Your task to perform on an android device: turn off notifications settings in the gmail app Image 0: 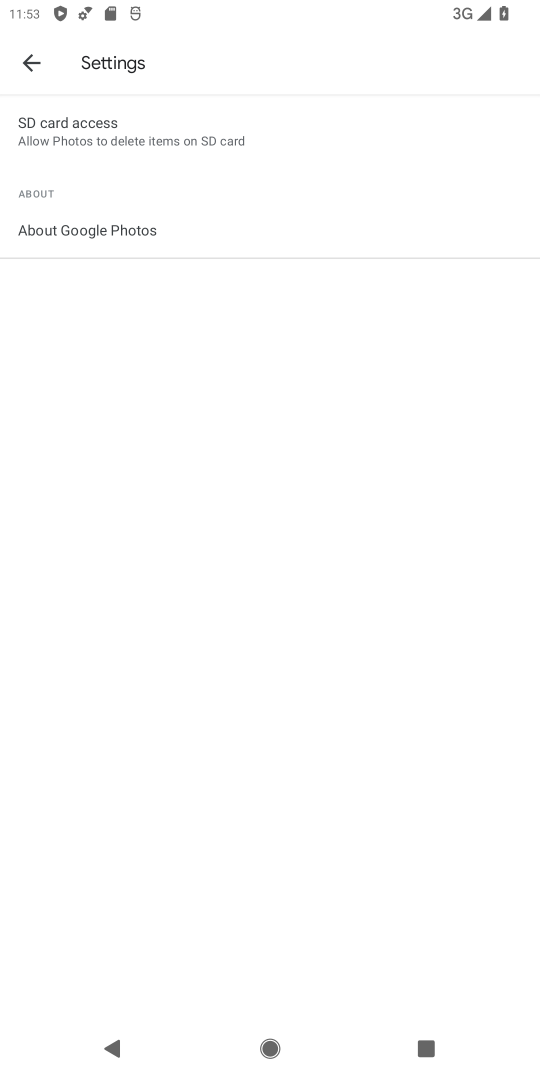
Step 0: press home button
Your task to perform on an android device: turn off notifications settings in the gmail app Image 1: 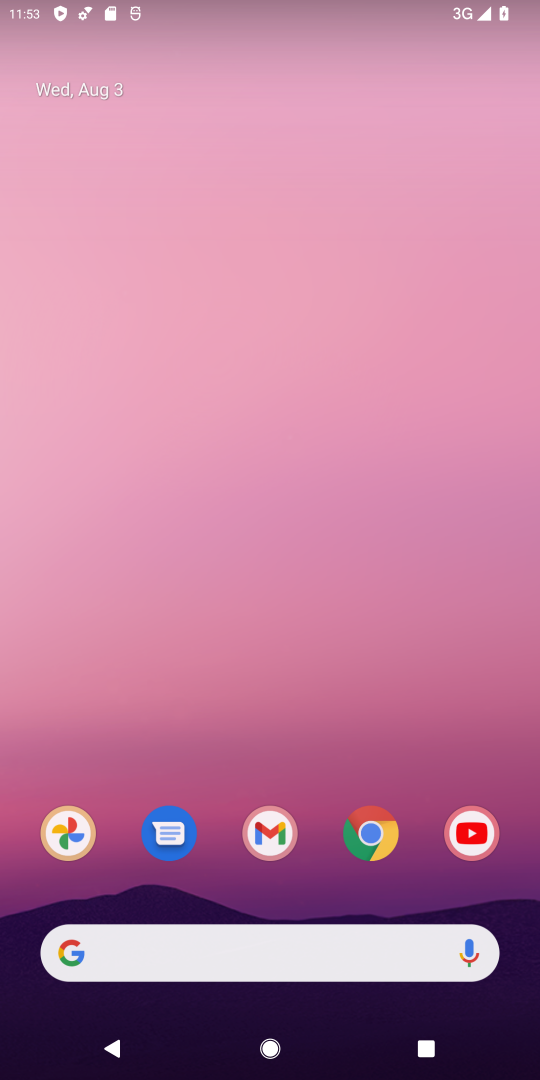
Step 1: drag from (266, 932) to (244, 95)
Your task to perform on an android device: turn off notifications settings in the gmail app Image 2: 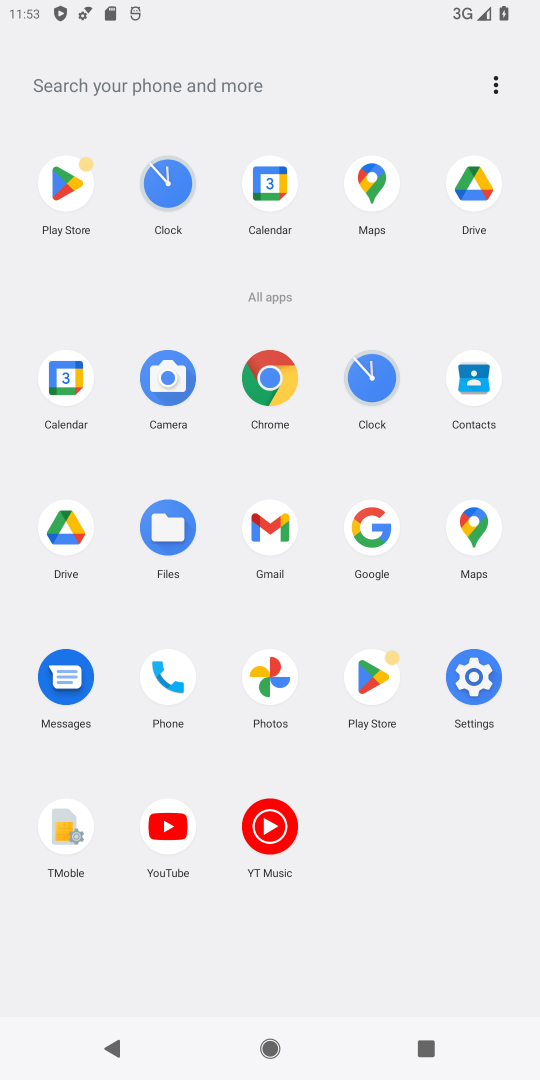
Step 2: click (251, 528)
Your task to perform on an android device: turn off notifications settings in the gmail app Image 3: 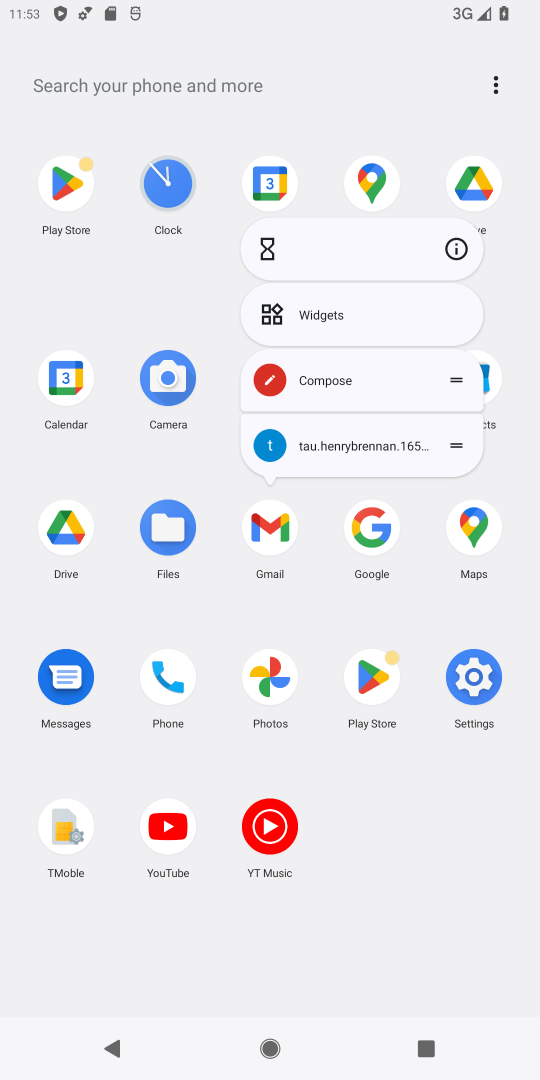
Step 3: click (452, 248)
Your task to perform on an android device: turn off notifications settings in the gmail app Image 4: 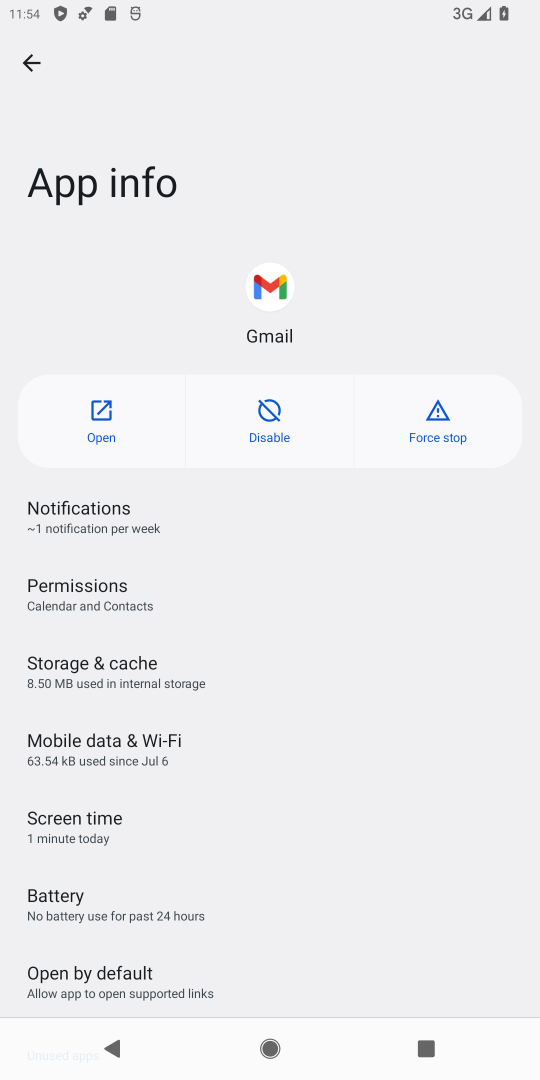
Step 4: click (106, 426)
Your task to perform on an android device: turn off notifications settings in the gmail app Image 5: 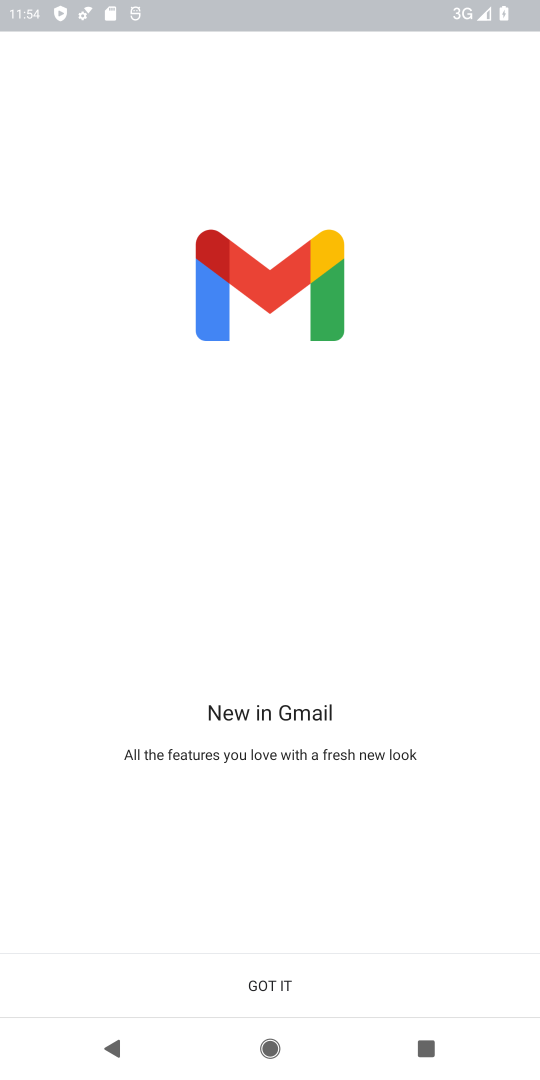
Step 5: drag from (261, 837) to (227, 548)
Your task to perform on an android device: turn off notifications settings in the gmail app Image 6: 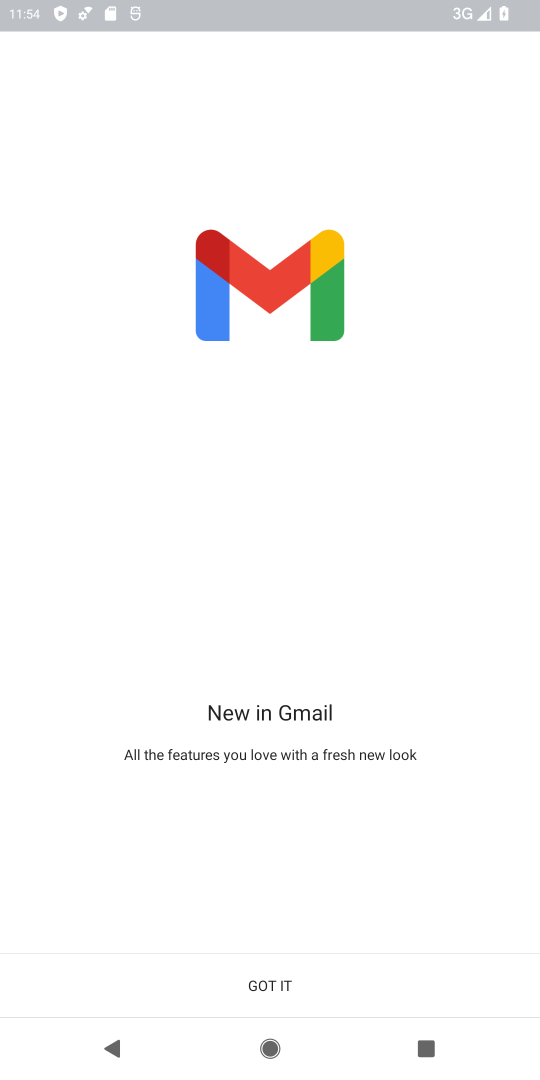
Step 6: click (240, 989)
Your task to perform on an android device: turn off notifications settings in the gmail app Image 7: 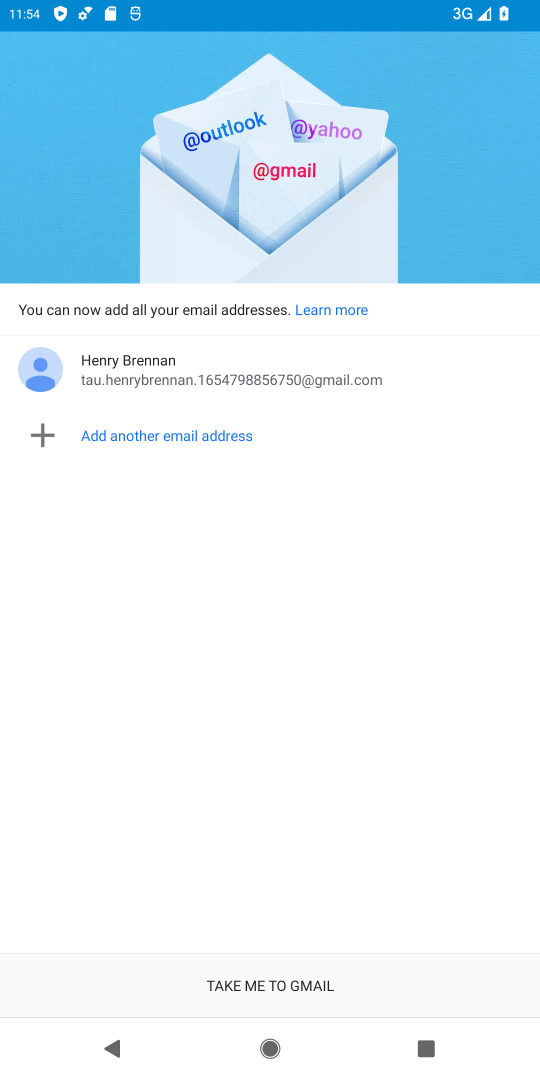
Step 7: click (245, 987)
Your task to perform on an android device: turn off notifications settings in the gmail app Image 8: 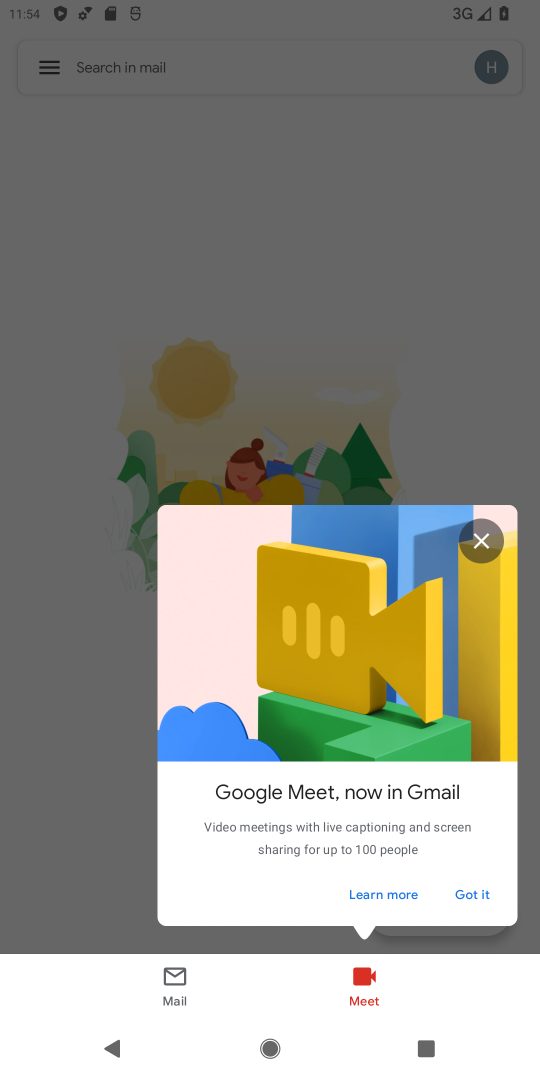
Step 8: click (467, 391)
Your task to perform on an android device: turn off notifications settings in the gmail app Image 9: 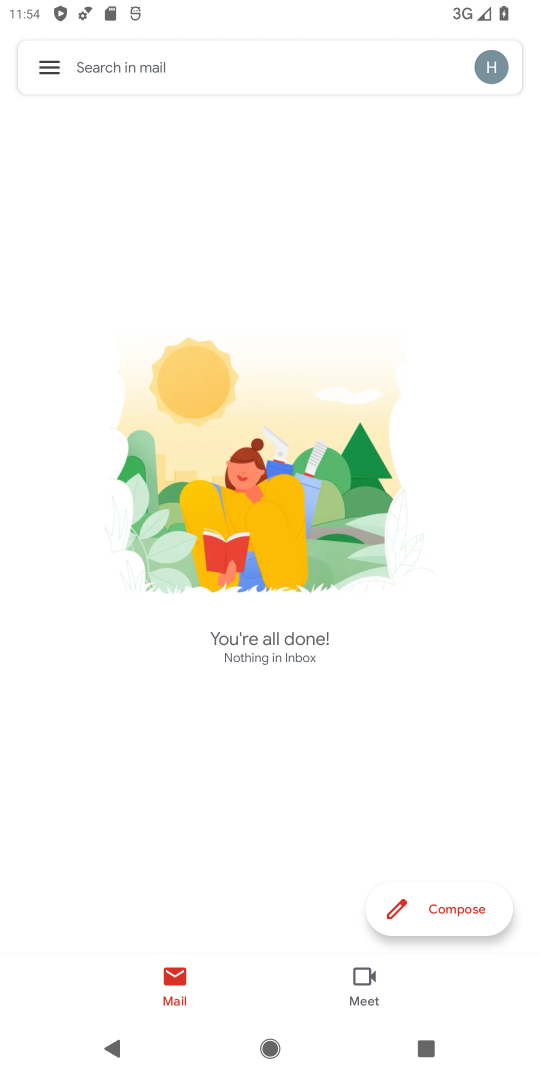
Step 9: drag from (298, 557) to (306, 409)
Your task to perform on an android device: turn off notifications settings in the gmail app Image 10: 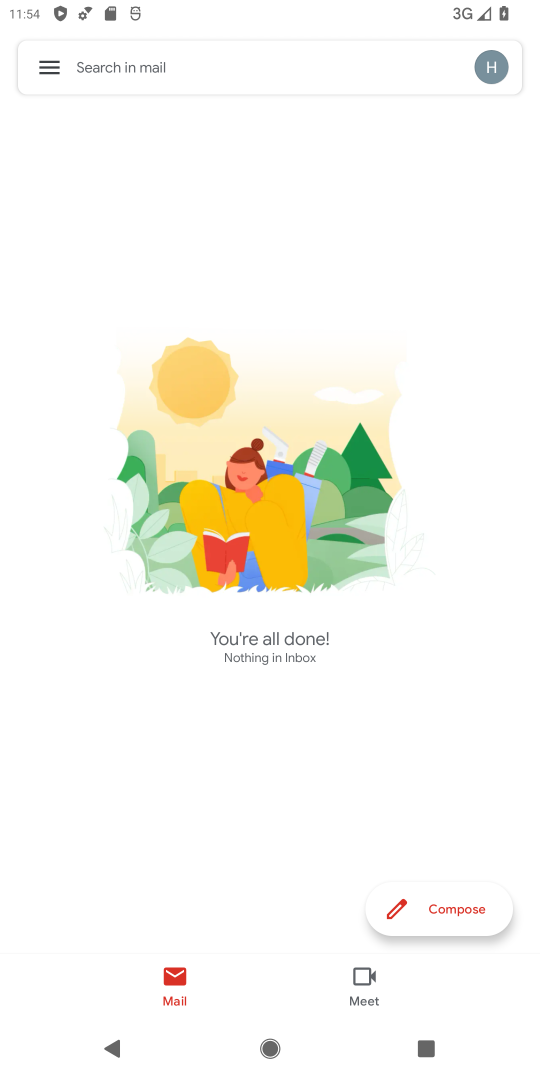
Step 10: click (33, 60)
Your task to perform on an android device: turn off notifications settings in the gmail app Image 11: 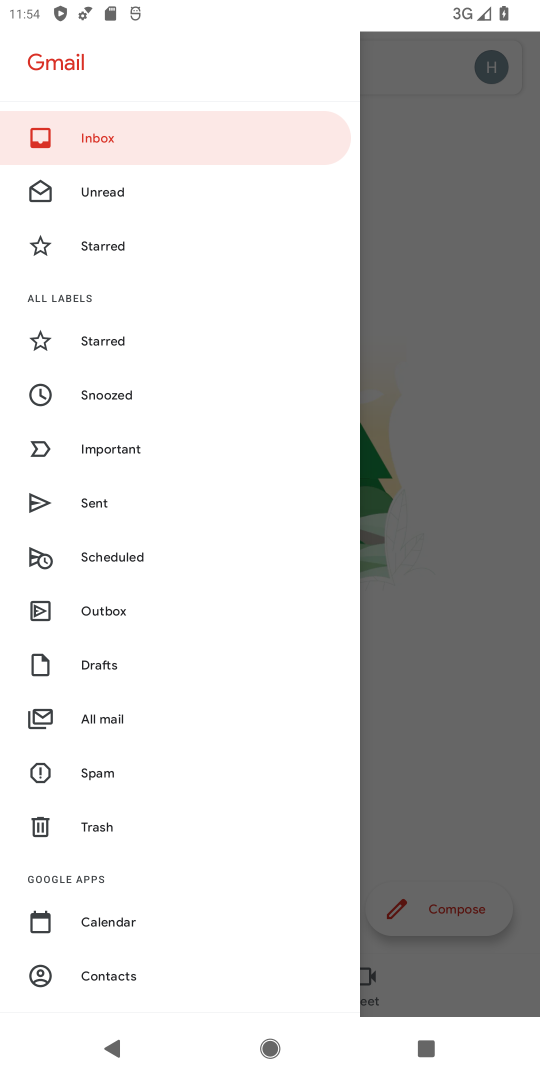
Step 11: drag from (171, 879) to (200, 297)
Your task to perform on an android device: turn off notifications settings in the gmail app Image 12: 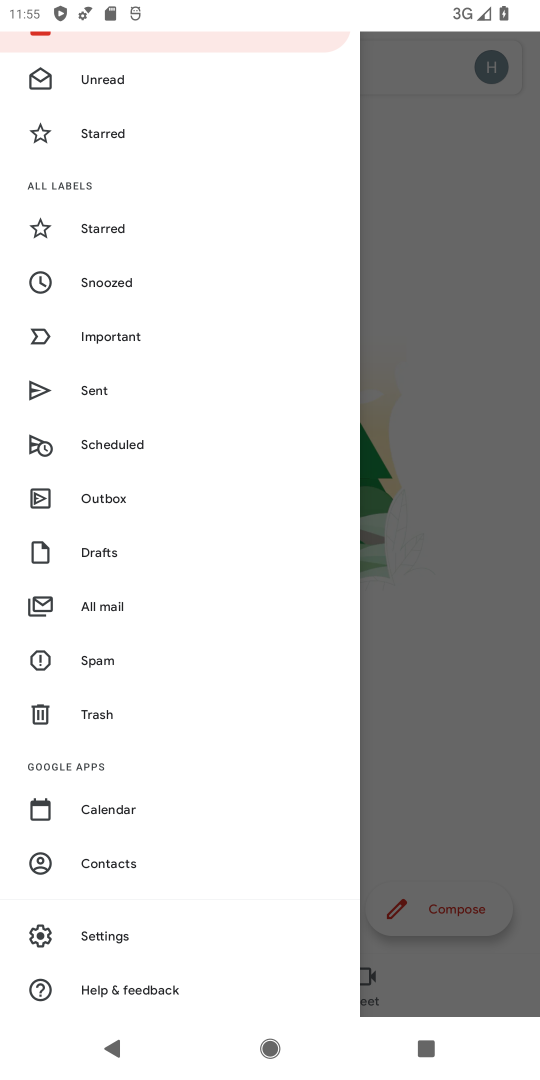
Step 12: click (125, 935)
Your task to perform on an android device: turn off notifications settings in the gmail app Image 13: 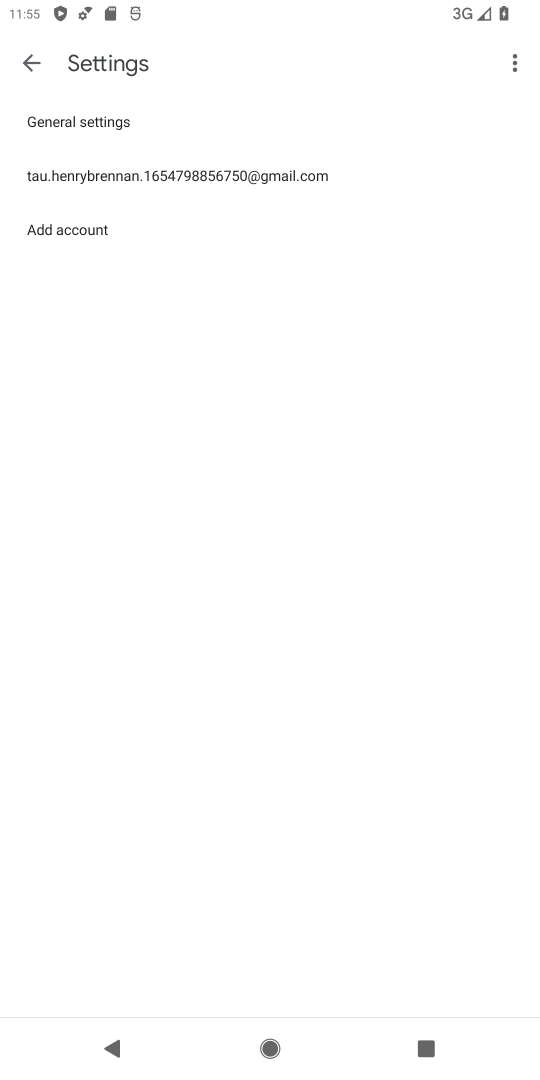
Step 13: click (165, 173)
Your task to perform on an android device: turn off notifications settings in the gmail app Image 14: 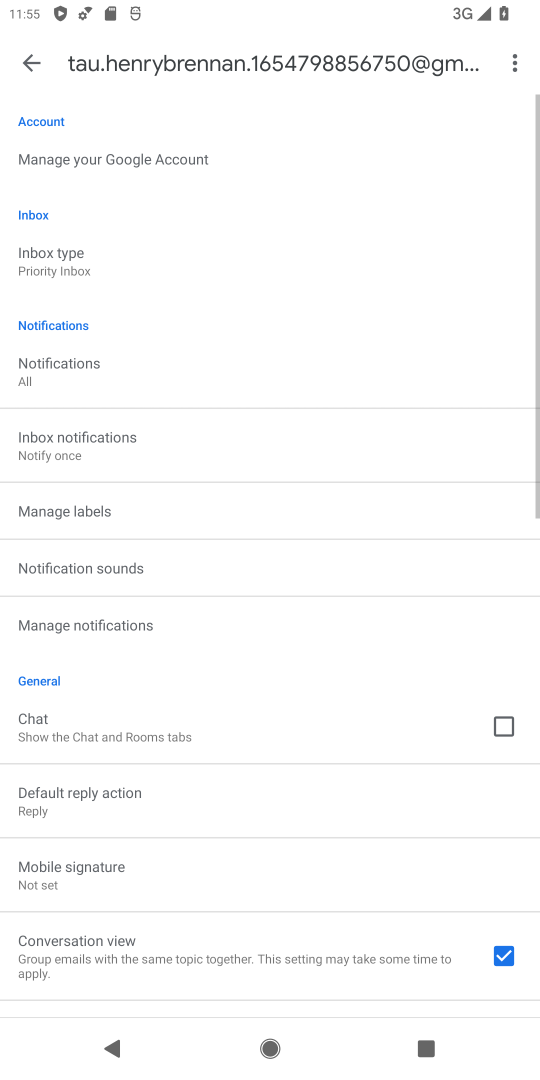
Step 14: drag from (188, 695) to (218, 311)
Your task to perform on an android device: turn off notifications settings in the gmail app Image 15: 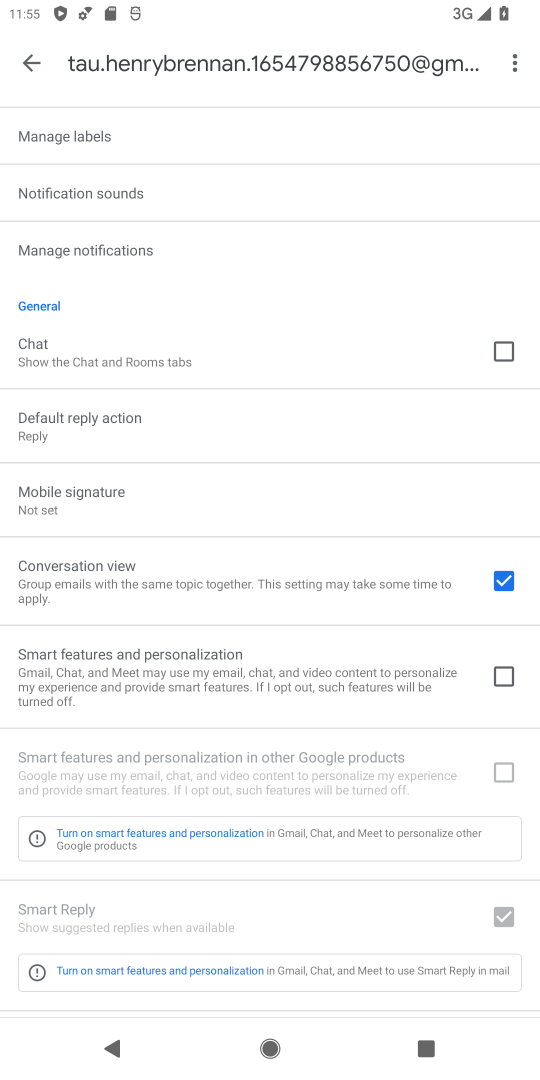
Step 15: drag from (260, 879) to (339, 264)
Your task to perform on an android device: turn off notifications settings in the gmail app Image 16: 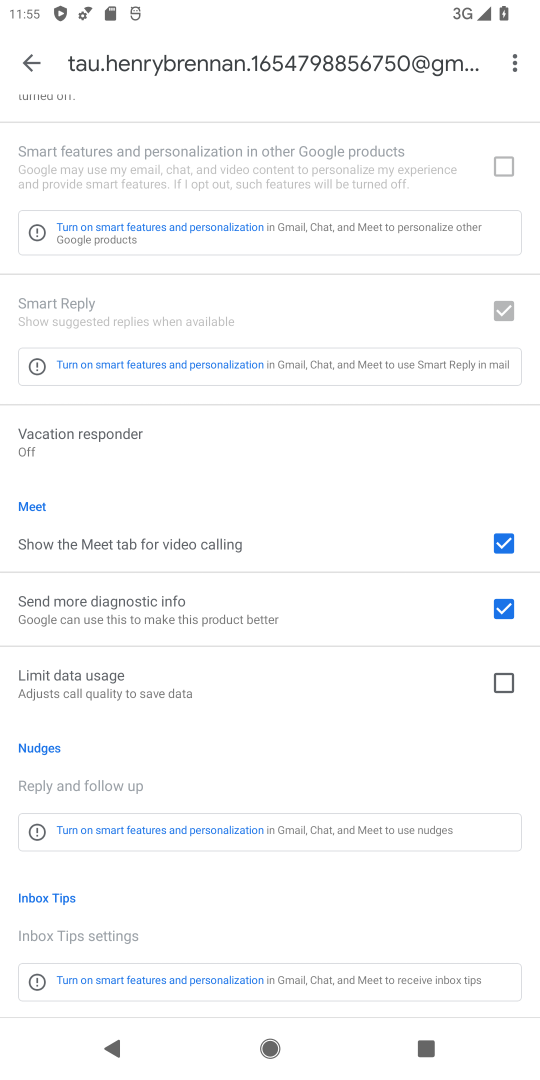
Step 16: drag from (307, 973) to (330, 362)
Your task to perform on an android device: turn off notifications settings in the gmail app Image 17: 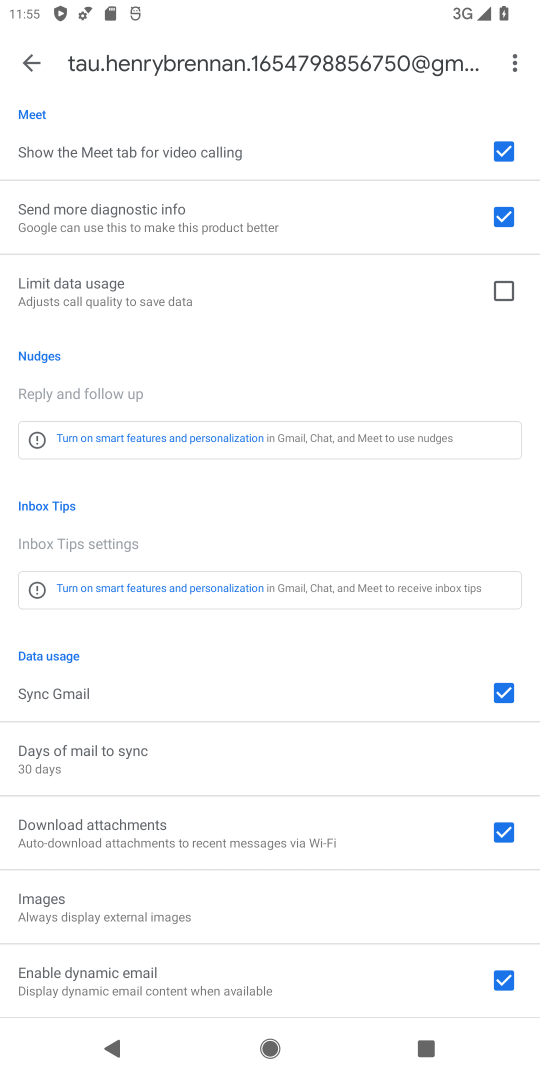
Step 17: drag from (177, 291) to (313, 1017)
Your task to perform on an android device: turn off notifications settings in the gmail app Image 18: 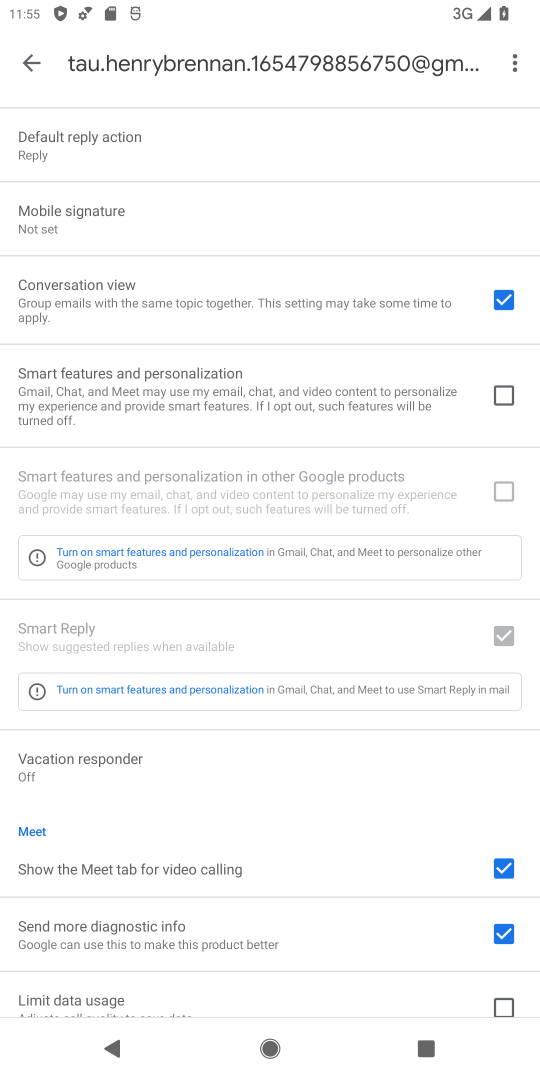
Step 18: drag from (185, 205) to (289, 783)
Your task to perform on an android device: turn off notifications settings in the gmail app Image 19: 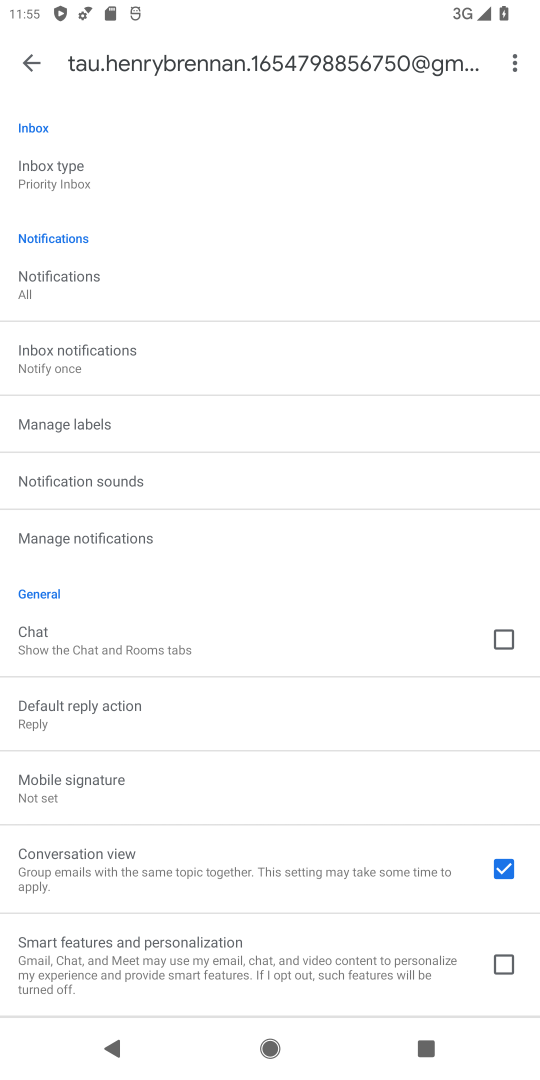
Step 19: click (128, 549)
Your task to perform on an android device: turn off notifications settings in the gmail app Image 20: 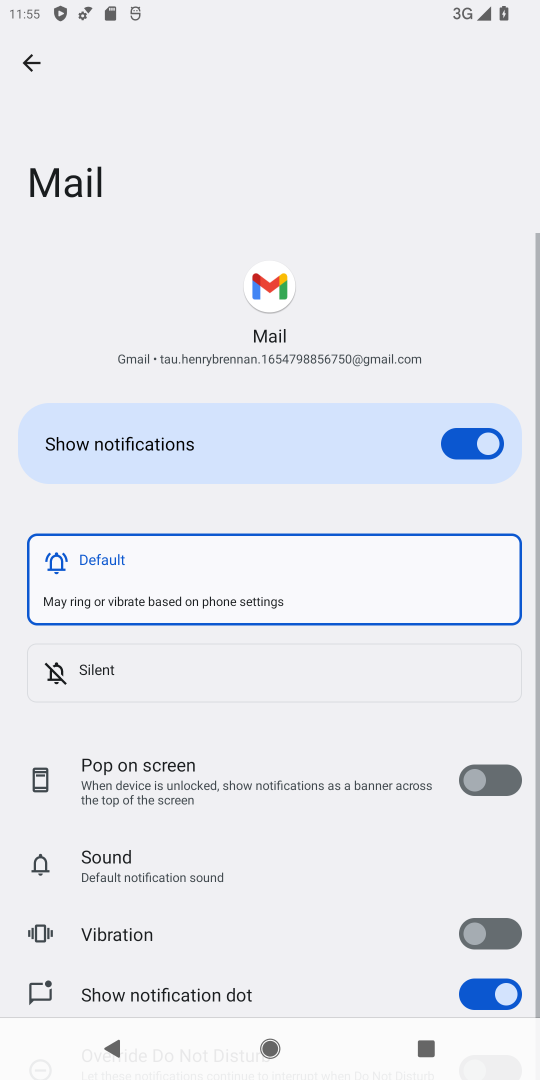
Step 20: drag from (248, 816) to (267, 506)
Your task to perform on an android device: turn off notifications settings in the gmail app Image 21: 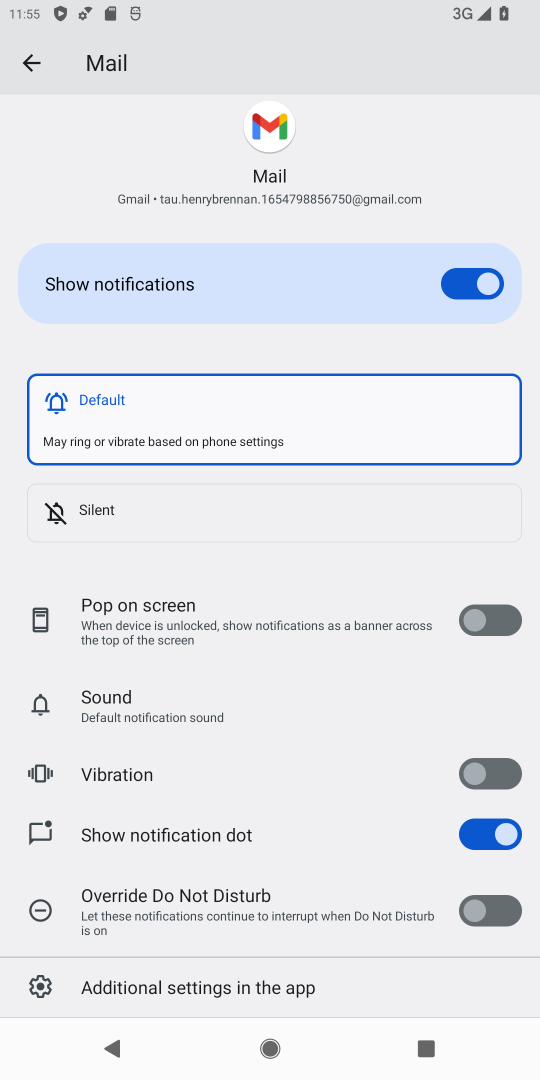
Step 21: click (469, 281)
Your task to perform on an android device: turn off notifications settings in the gmail app Image 22: 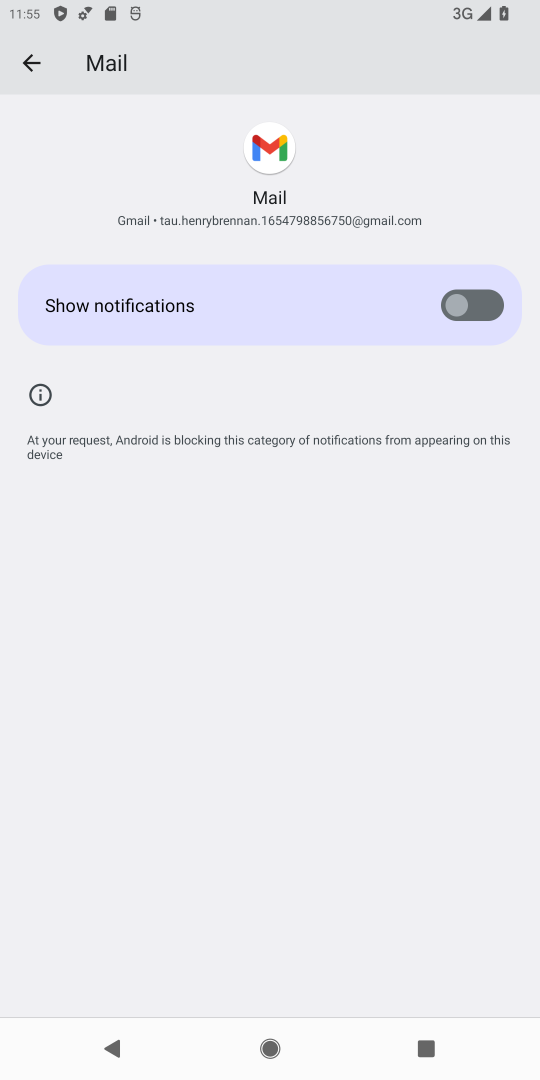
Step 22: task complete